Your task to perform on an android device: Is it going to rain this weekend? Image 0: 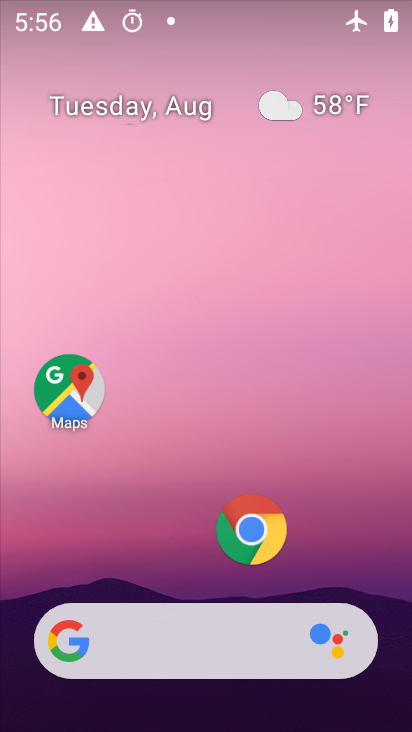
Step 0: drag from (179, 509) to (189, 206)
Your task to perform on an android device: Is it going to rain this weekend? Image 1: 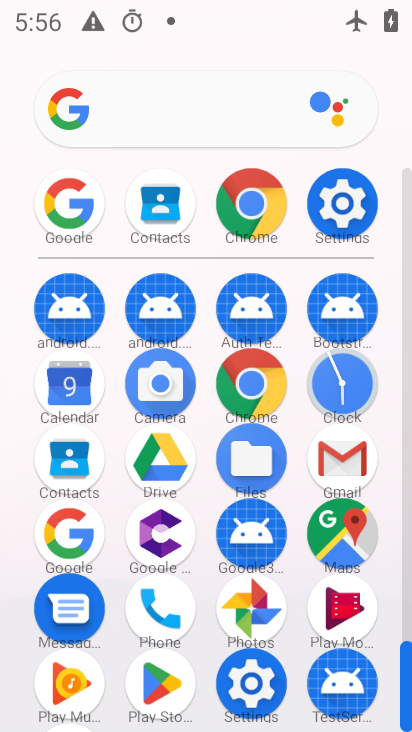
Step 1: click (85, 541)
Your task to perform on an android device: Is it going to rain this weekend? Image 2: 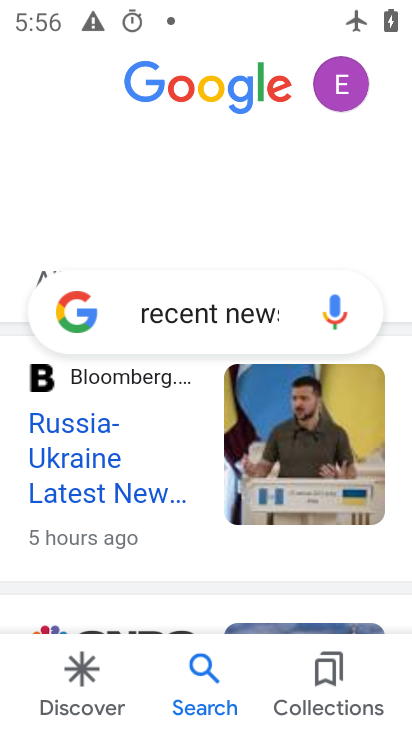
Step 2: click (230, 304)
Your task to perform on an android device: Is it going to rain this weekend? Image 3: 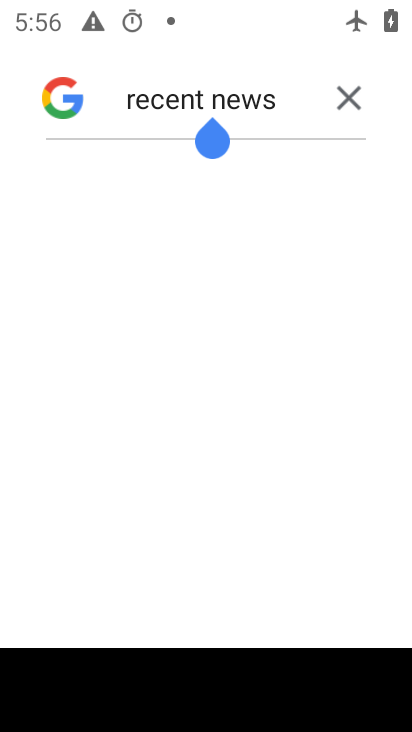
Step 3: click (350, 106)
Your task to perform on an android device: Is it going to rain this weekend? Image 4: 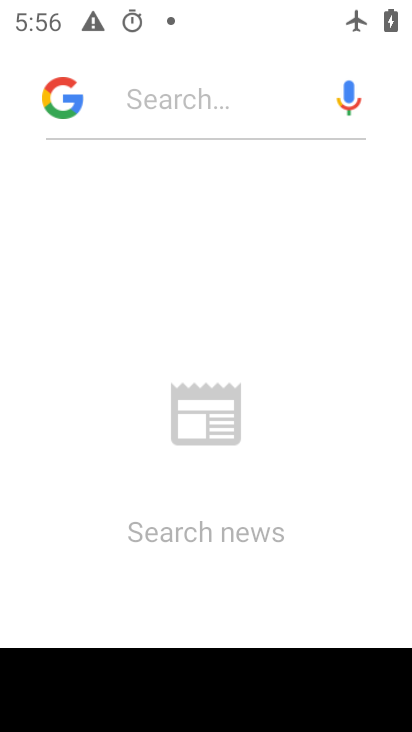
Step 4: type "weather"
Your task to perform on an android device: Is it going to rain this weekend? Image 5: 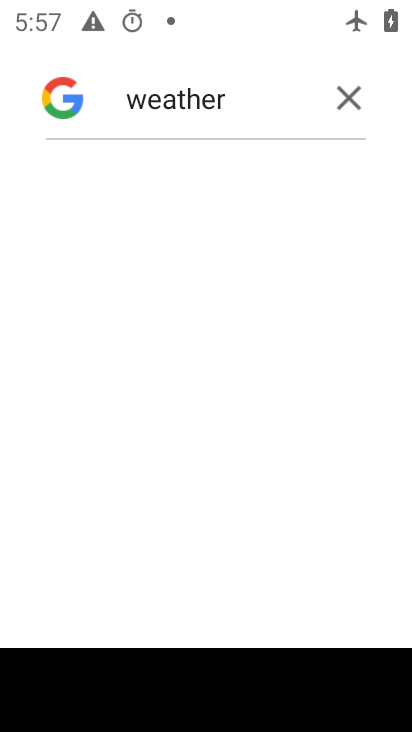
Step 5: task complete